Your task to perform on an android device: make emails show in primary in the gmail app Image 0: 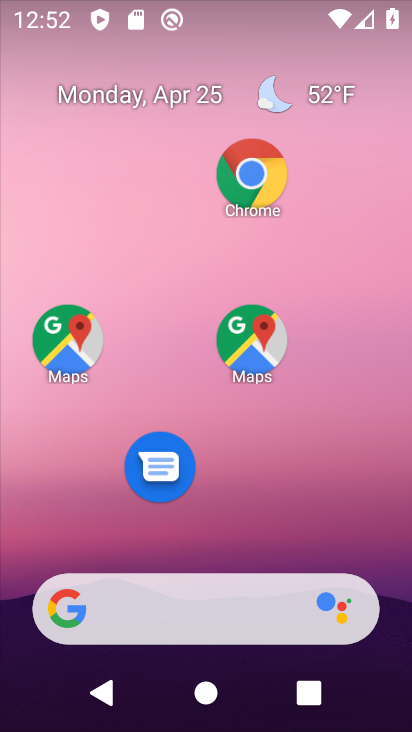
Step 0: drag from (259, 382) to (290, 58)
Your task to perform on an android device: make emails show in primary in the gmail app Image 1: 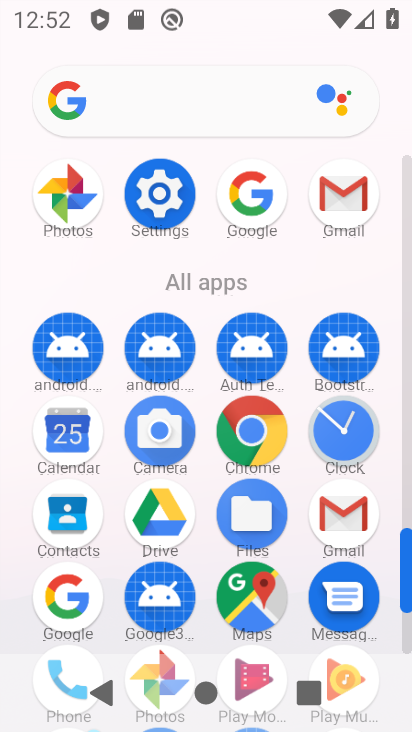
Step 1: click (347, 186)
Your task to perform on an android device: make emails show in primary in the gmail app Image 2: 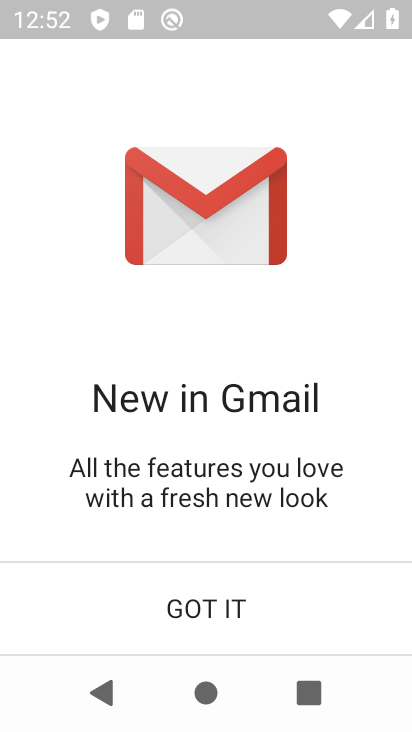
Step 2: click (191, 625)
Your task to perform on an android device: make emails show in primary in the gmail app Image 3: 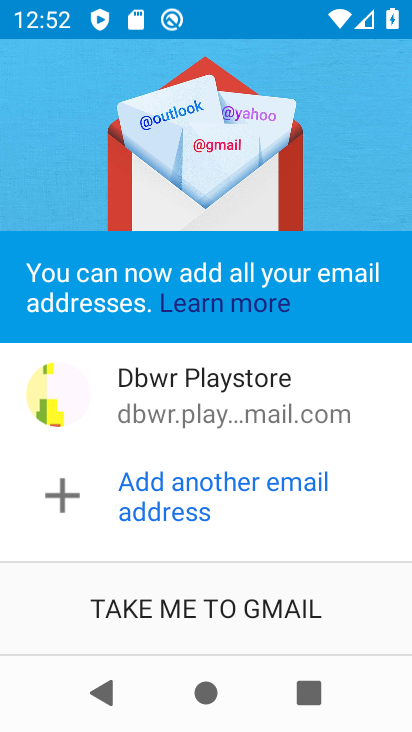
Step 3: click (208, 603)
Your task to perform on an android device: make emails show in primary in the gmail app Image 4: 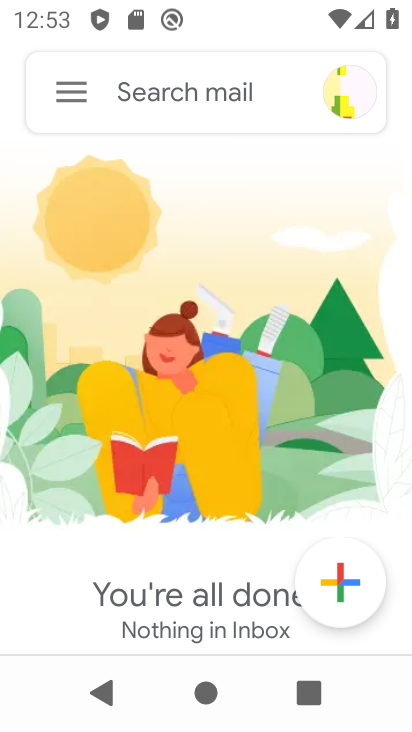
Step 4: click (82, 93)
Your task to perform on an android device: make emails show in primary in the gmail app Image 5: 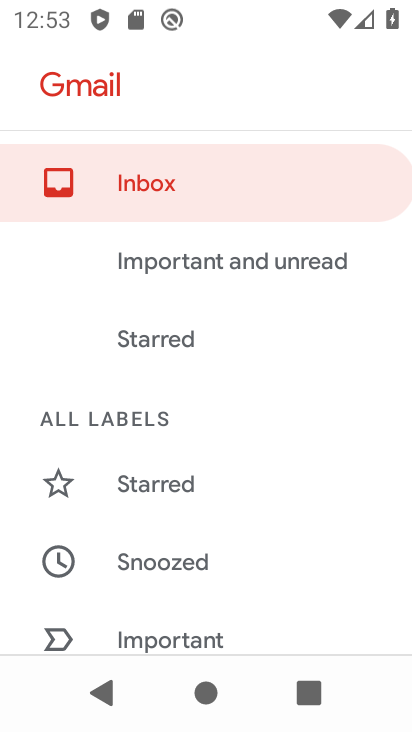
Step 5: drag from (208, 507) to (280, 38)
Your task to perform on an android device: make emails show in primary in the gmail app Image 6: 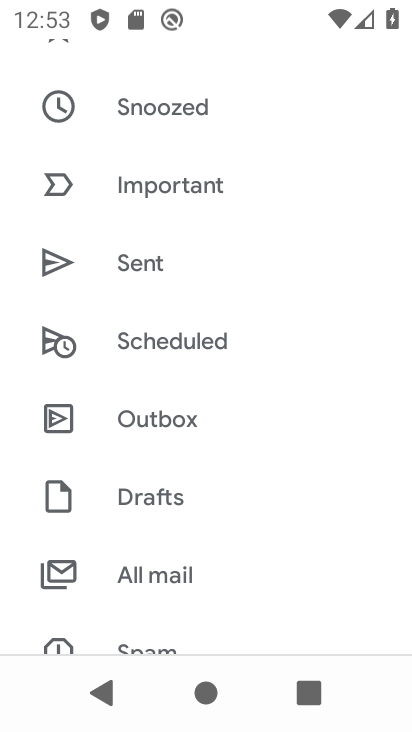
Step 6: drag from (253, 456) to (222, 87)
Your task to perform on an android device: make emails show in primary in the gmail app Image 7: 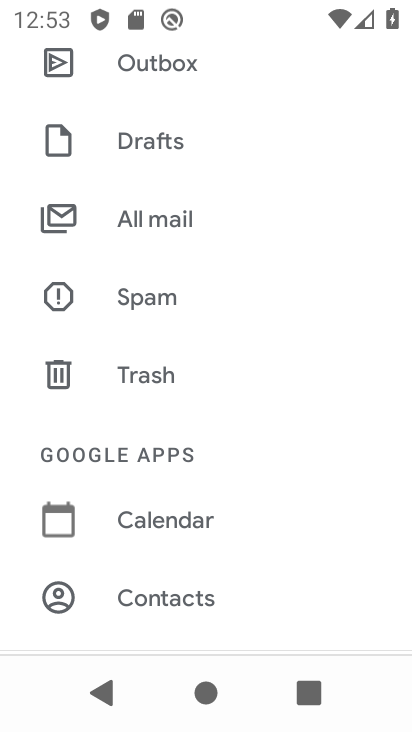
Step 7: drag from (255, 501) to (275, 271)
Your task to perform on an android device: make emails show in primary in the gmail app Image 8: 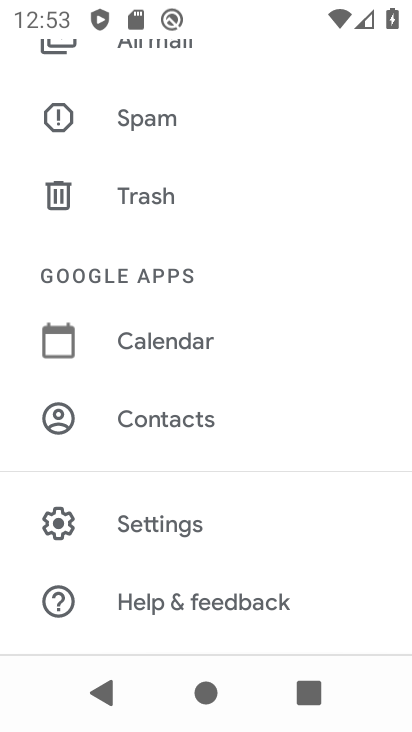
Step 8: click (202, 523)
Your task to perform on an android device: make emails show in primary in the gmail app Image 9: 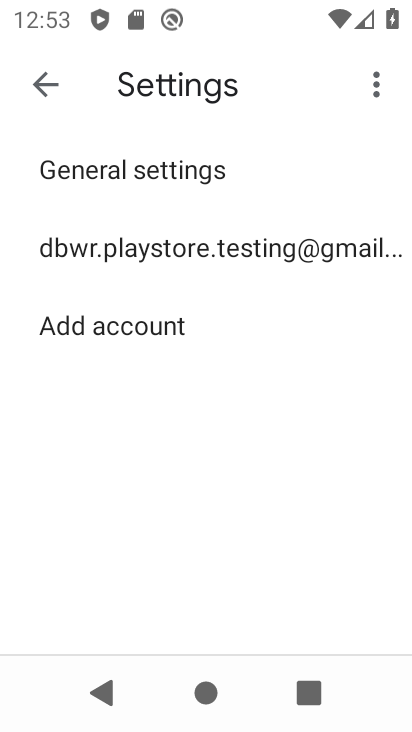
Step 9: click (144, 229)
Your task to perform on an android device: make emails show in primary in the gmail app Image 10: 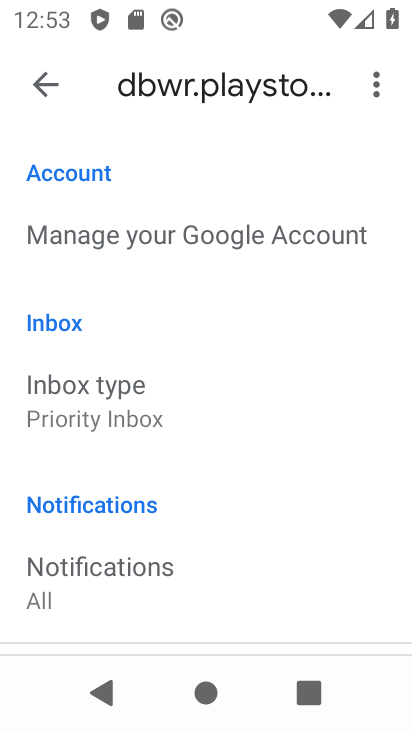
Step 10: click (160, 404)
Your task to perform on an android device: make emails show in primary in the gmail app Image 11: 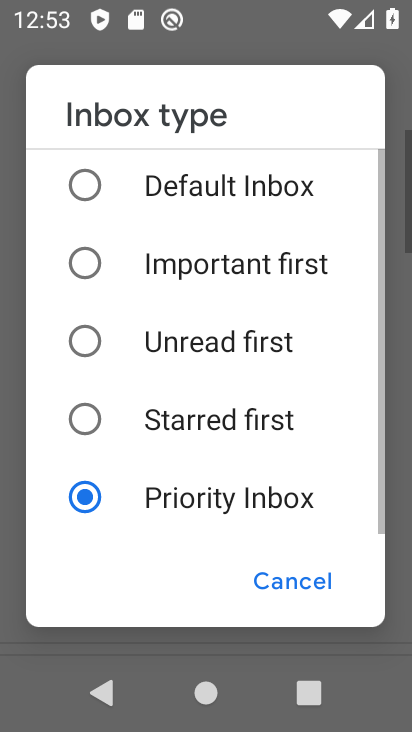
Step 11: click (82, 191)
Your task to perform on an android device: make emails show in primary in the gmail app Image 12: 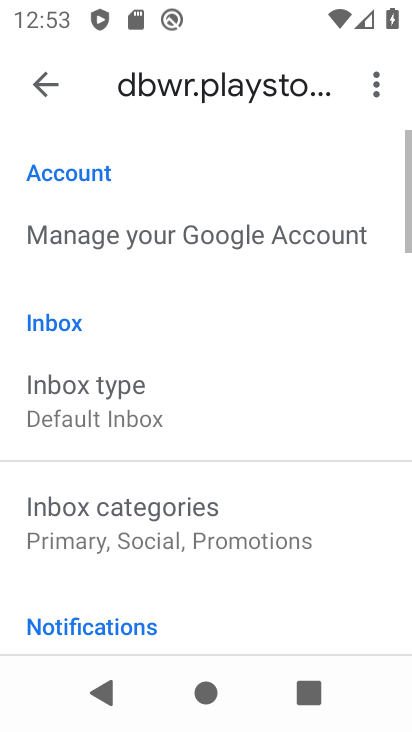
Step 12: click (140, 530)
Your task to perform on an android device: make emails show in primary in the gmail app Image 13: 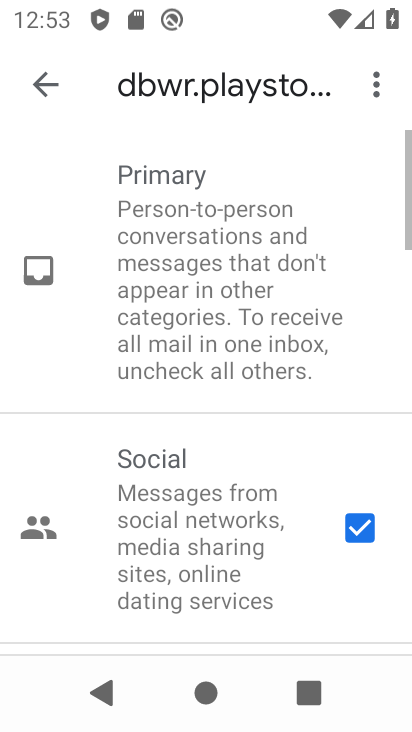
Step 13: drag from (351, 534) to (152, 181)
Your task to perform on an android device: make emails show in primary in the gmail app Image 14: 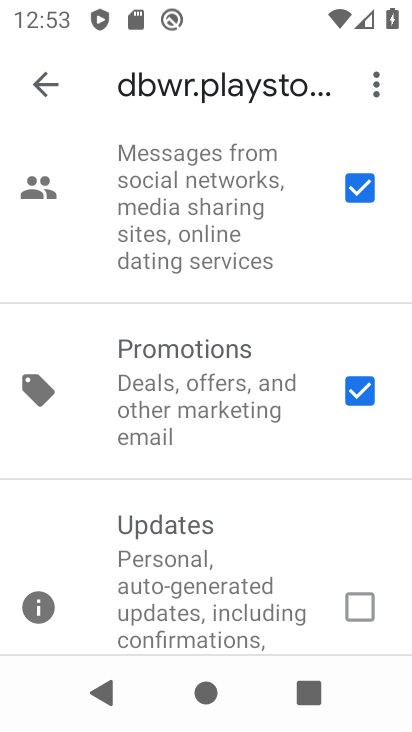
Step 14: drag from (370, 384) to (199, 432)
Your task to perform on an android device: make emails show in primary in the gmail app Image 15: 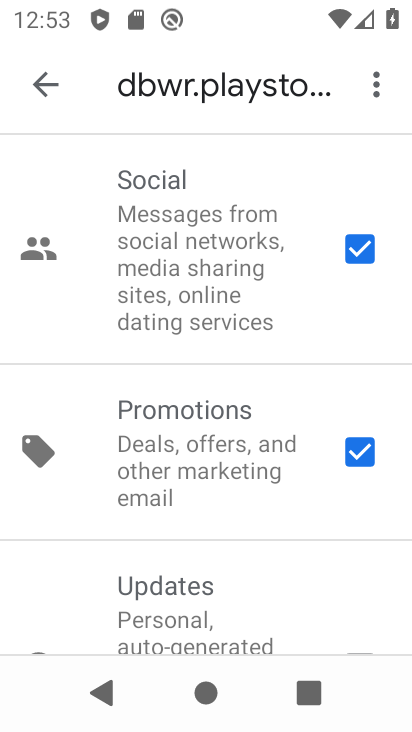
Step 15: click (357, 459)
Your task to perform on an android device: make emails show in primary in the gmail app Image 16: 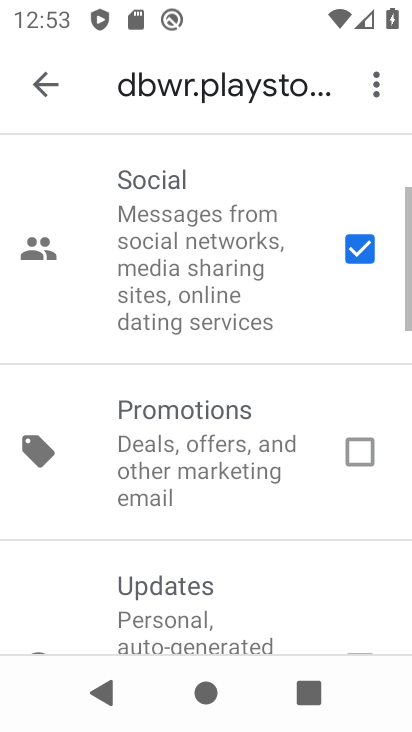
Step 16: click (361, 247)
Your task to perform on an android device: make emails show in primary in the gmail app Image 17: 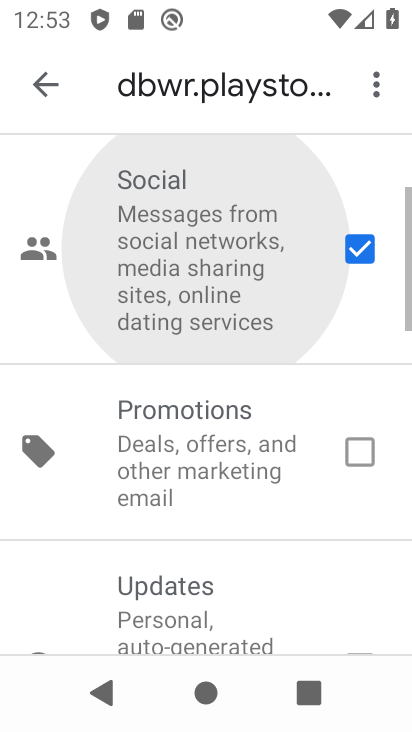
Step 17: drag from (293, 492) to (262, 219)
Your task to perform on an android device: make emails show in primary in the gmail app Image 18: 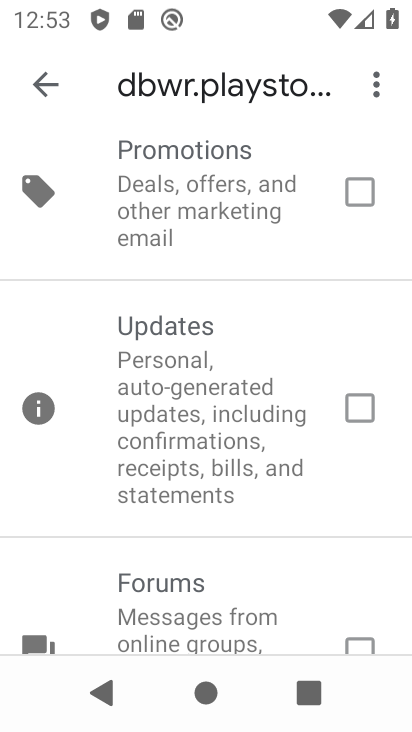
Step 18: click (99, 690)
Your task to perform on an android device: make emails show in primary in the gmail app Image 19: 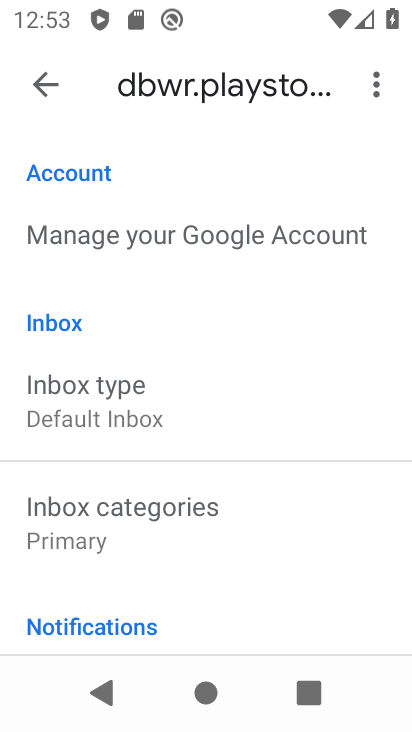
Step 19: task complete